Your task to perform on an android device: Open the calendar app, open the side menu, and click the "Day" option Image 0: 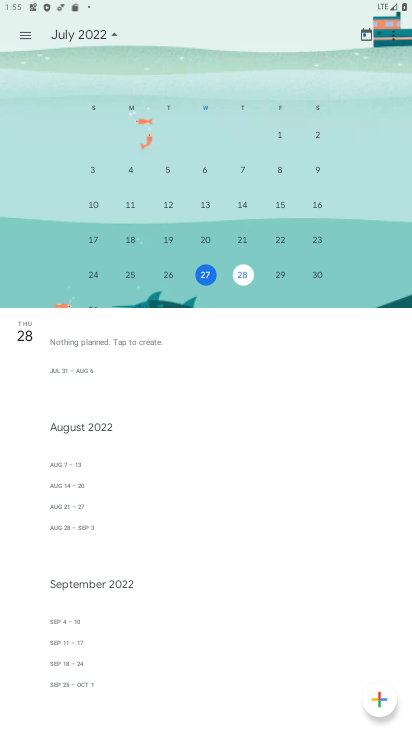
Step 0: press home button
Your task to perform on an android device: Open the calendar app, open the side menu, and click the "Day" option Image 1: 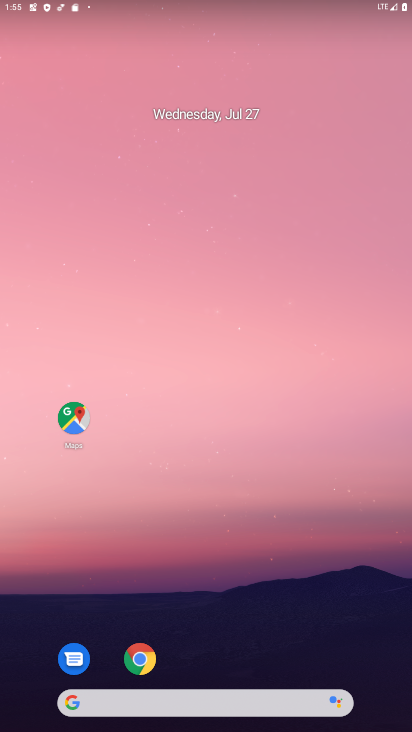
Step 1: drag from (206, 724) to (191, 286)
Your task to perform on an android device: Open the calendar app, open the side menu, and click the "Day" option Image 2: 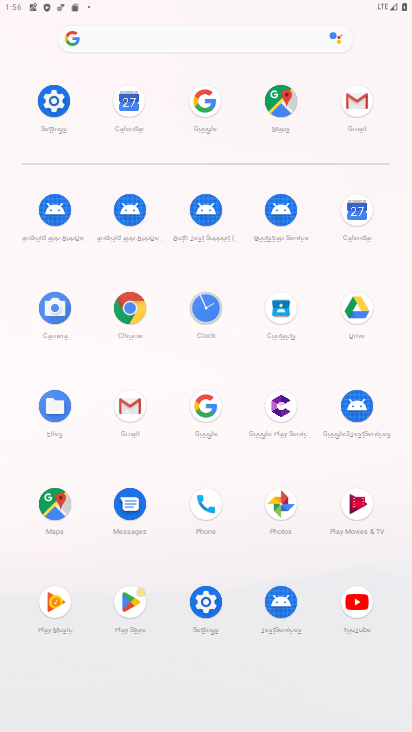
Step 2: click (358, 211)
Your task to perform on an android device: Open the calendar app, open the side menu, and click the "Day" option Image 3: 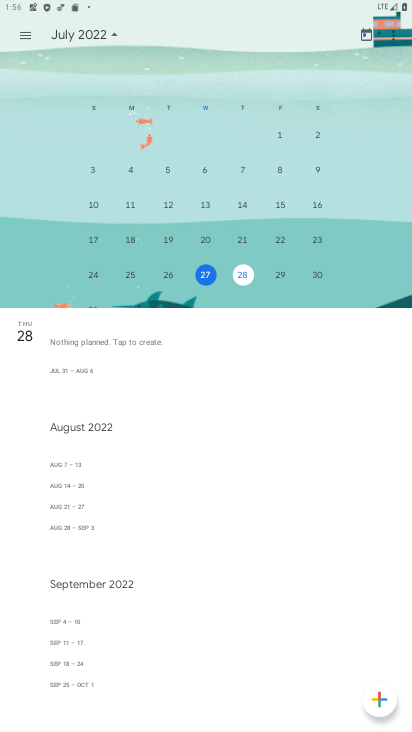
Step 3: click (25, 36)
Your task to perform on an android device: Open the calendar app, open the side menu, and click the "Day" option Image 4: 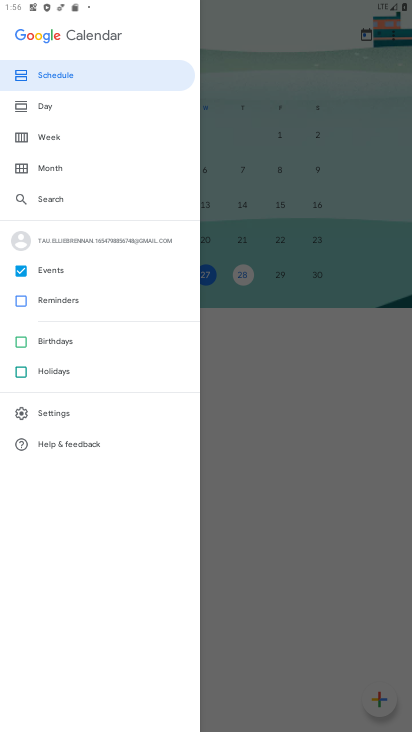
Step 4: click (44, 104)
Your task to perform on an android device: Open the calendar app, open the side menu, and click the "Day" option Image 5: 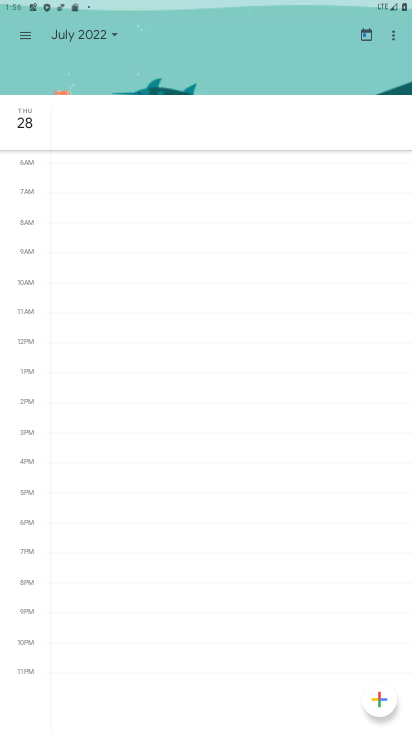
Step 5: task complete